Your task to perform on an android device: Go to internet settings Image 0: 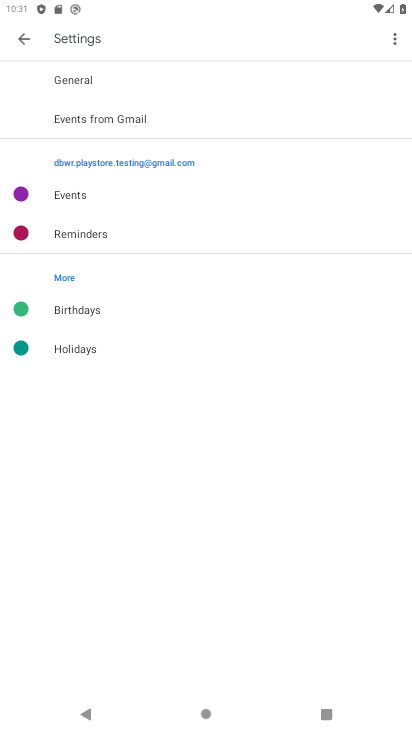
Step 0: press home button
Your task to perform on an android device: Go to internet settings Image 1: 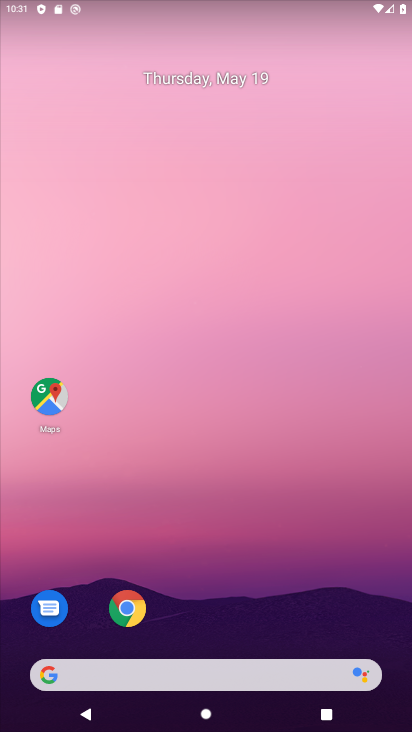
Step 1: drag from (391, 677) to (343, 65)
Your task to perform on an android device: Go to internet settings Image 2: 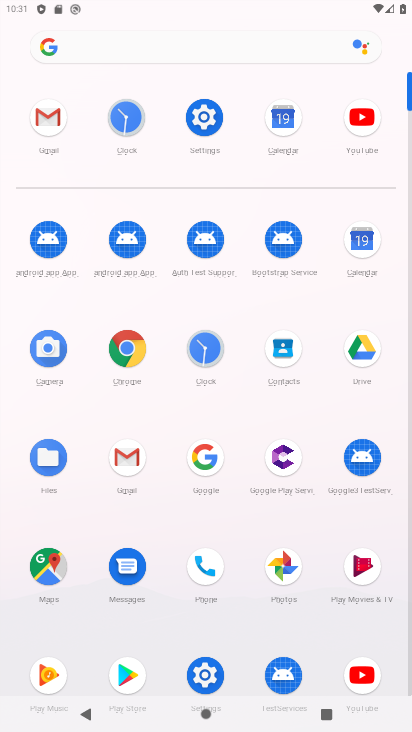
Step 2: click (213, 126)
Your task to perform on an android device: Go to internet settings Image 3: 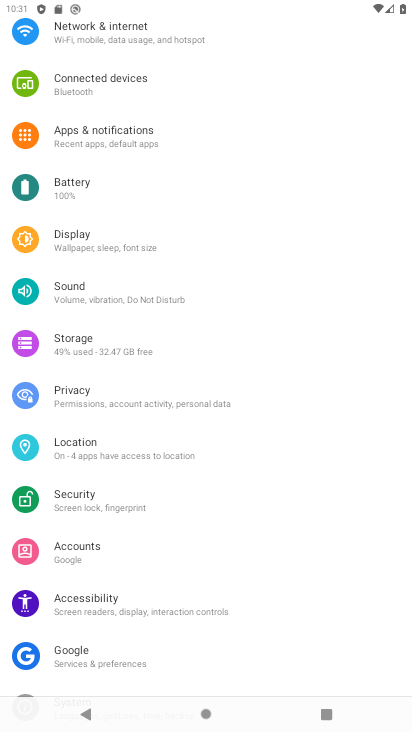
Step 3: click (87, 34)
Your task to perform on an android device: Go to internet settings Image 4: 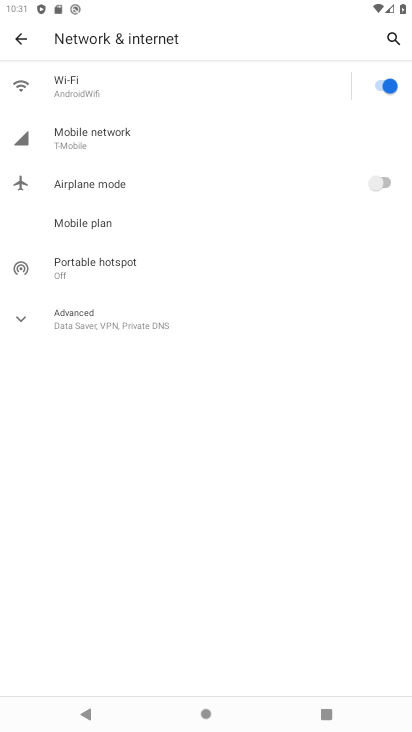
Step 4: click (69, 125)
Your task to perform on an android device: Go to internet settings Image 5: 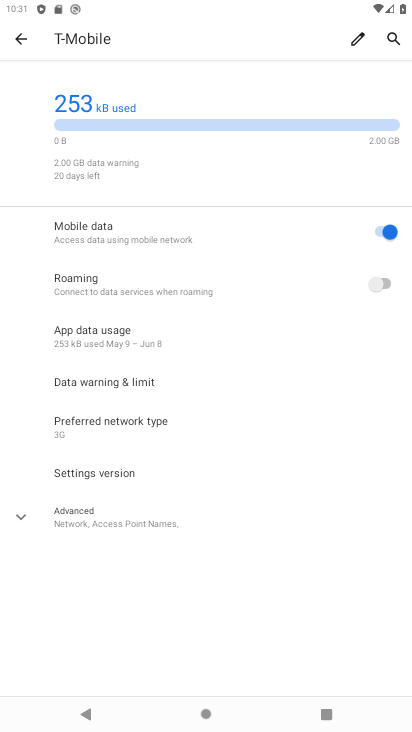
Step 5: task complete